Your task to perform on an android device: change keyboard looks Image 0: 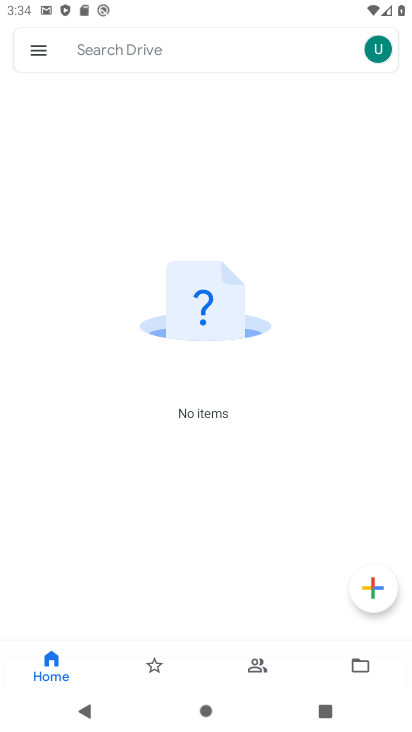
Step 0: press home button
Your task to perform on an android device: change keyboard looks Image 1: 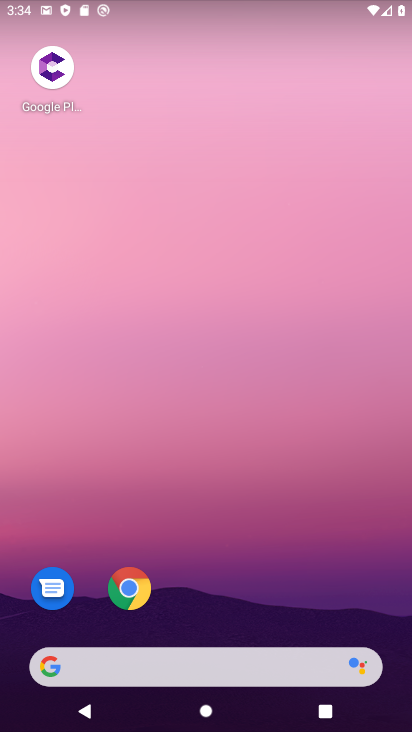
Step 1: drag from (366, 622) to (410, 490)
Your task to perform on an android device: change keyboard looks Image 2: 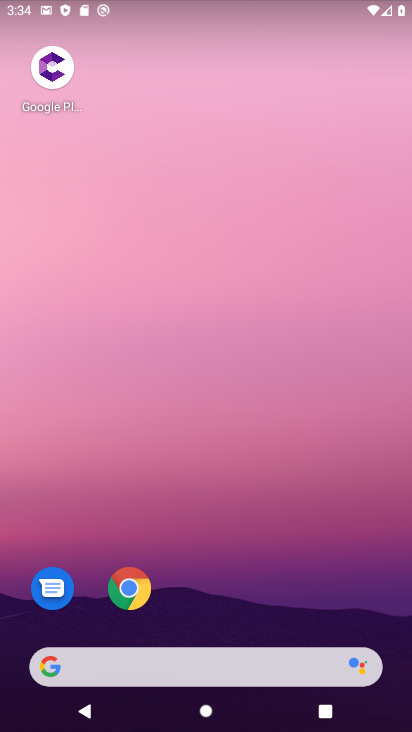
Step 2: drag from (273, 665) to (301, 156)
Your task to perform on an android device: change keyboard looks Image 3: 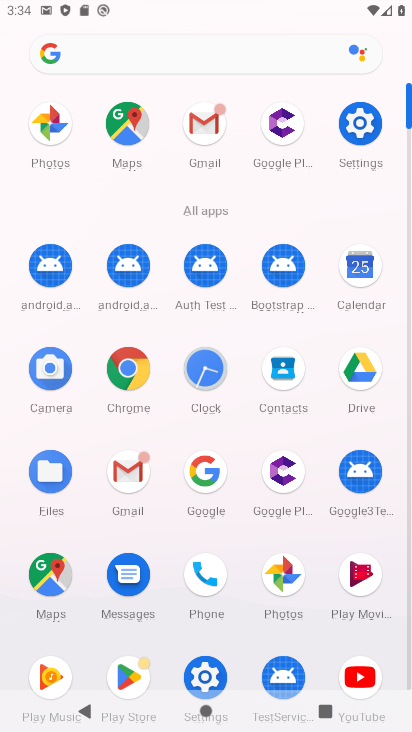
Step 3: click (212, 661)
Your task to perform on an android device: change keyboard looks Image 4: 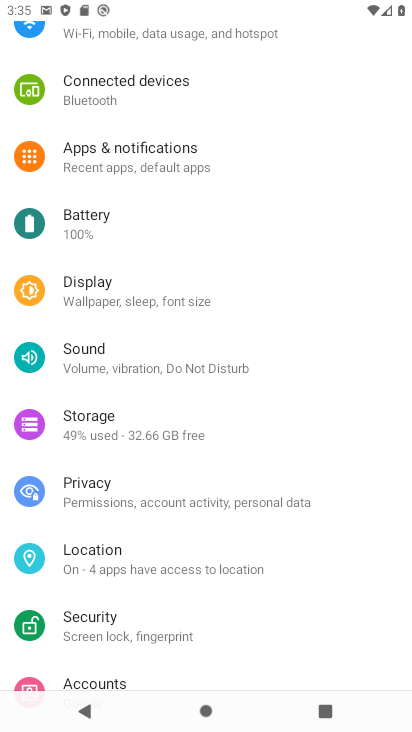
Step 4: drag from (165, 557) to (131, 114)
Your task to perform on an android device: change keyboard looks Image 5: 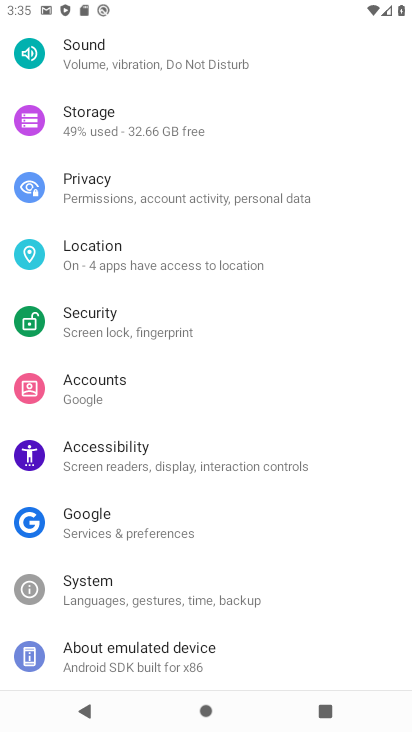
Step 5: click (78, 579)
Your task to perform on an android device: change keyboard looks Image 6: 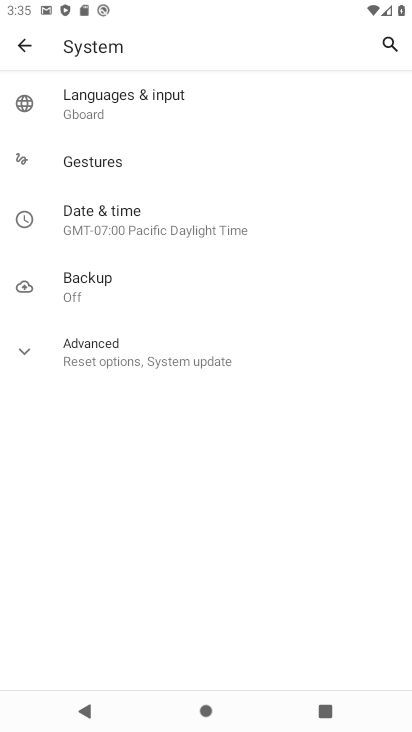
Step 6: click (86, 86)
Your task to perform on an android device: change keyboard looks Image 7: 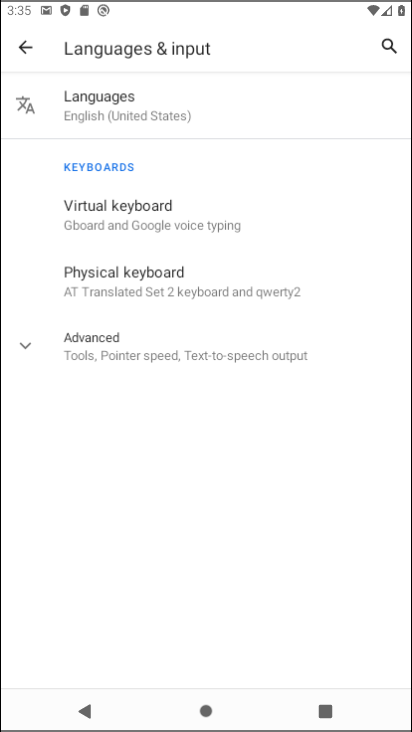
Step 7: click (92, 212)
Your task to perform on an android device: change keyboard looks Image 8: 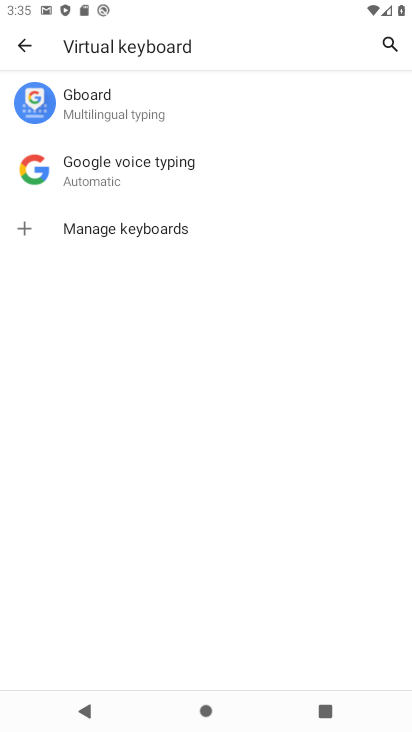
Step 8: click (114, 103)
Your task to perform on an android device: change keyboard looks Image 9: 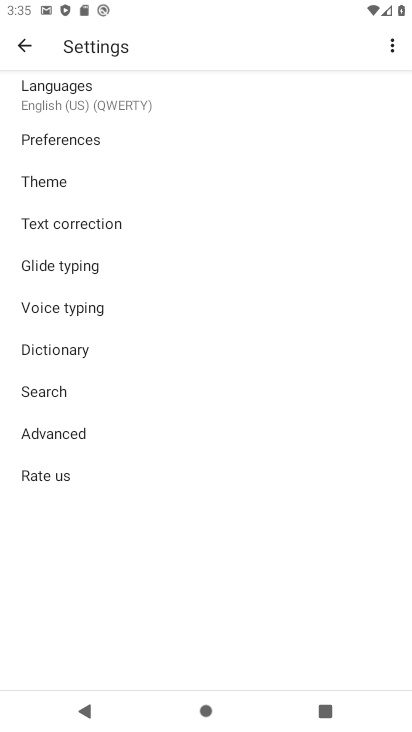
Step 9: click (113, 170)
Your task to perform on an android device: change keyboard looks Image 10: 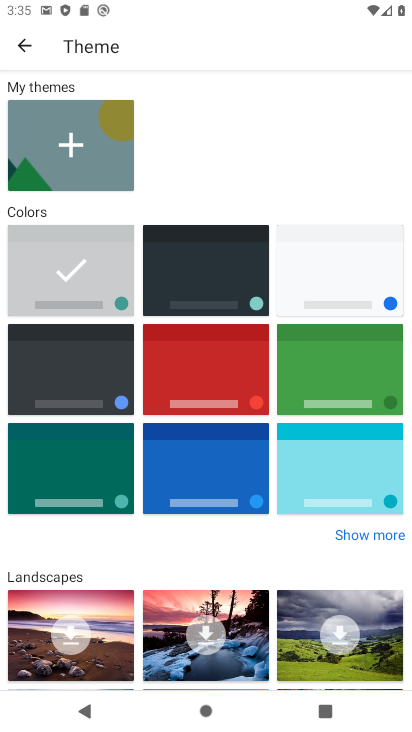
Step 10: click (210, 477)
Your task to perform on an android device: change keyboard looks Image 11: 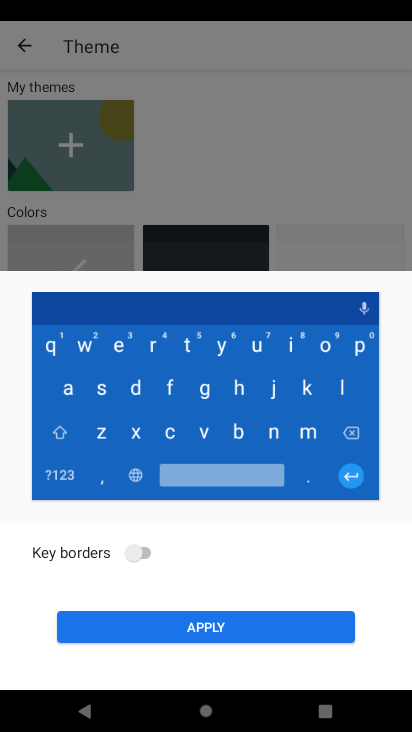
Step 11: click (130, 539)
Your task to perform on an android device: change keyboard looks Image 12: 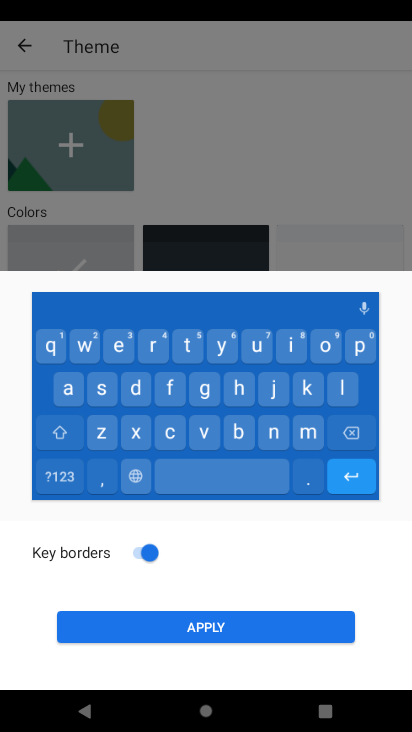
Step 12: click (199, 612)
Your task to perform on an android device: change keyboard looks Image 13: 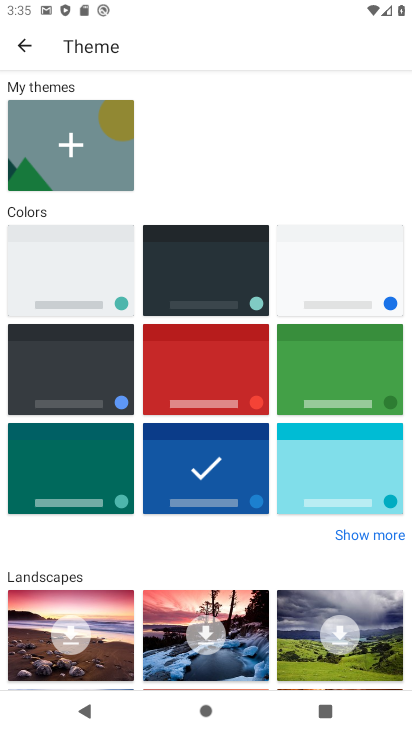
Step 13: task complete